Your task to perform on an android device: Search for seafood restaurants on Google Maps Image 0: 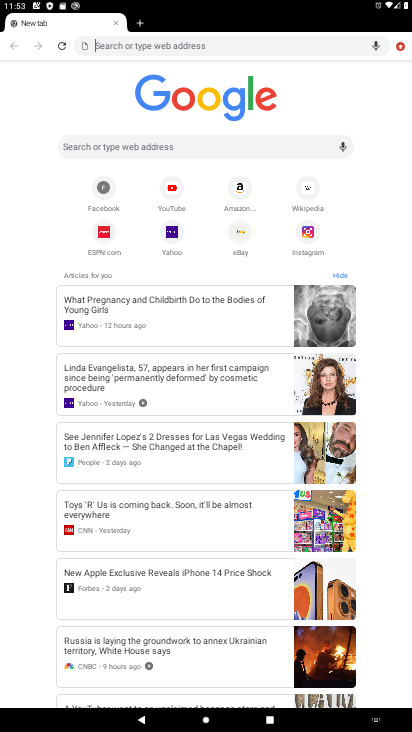
Step 0: press home button
Your task to perform on an android device: Search for seafood restaurants on Google Maps Image 1: 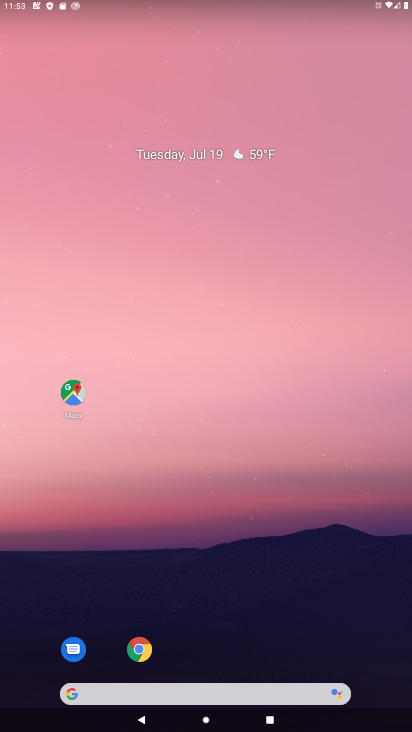
Step 1: drag from (241, 566) to (279, 333)
Your task to perform on an android device: Search for seafood restaurants on Google Maps Image 2: 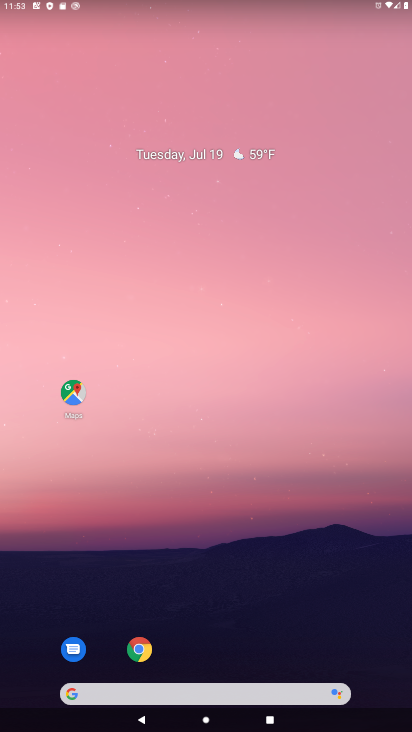
Step 2: click (78, 386)
Your task to perform on an android device: Search for seafood restaurants on Google Maps Image 3: 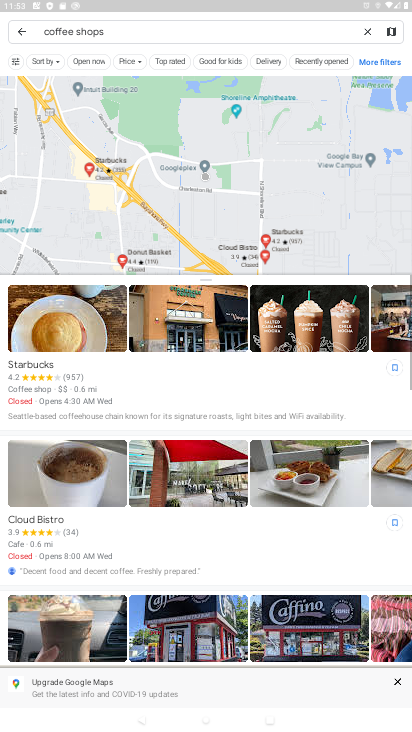
Step 3: click (181, 37)
Your task to perform on an android device: Search for seafood restaurants on Google Maps Image 4: 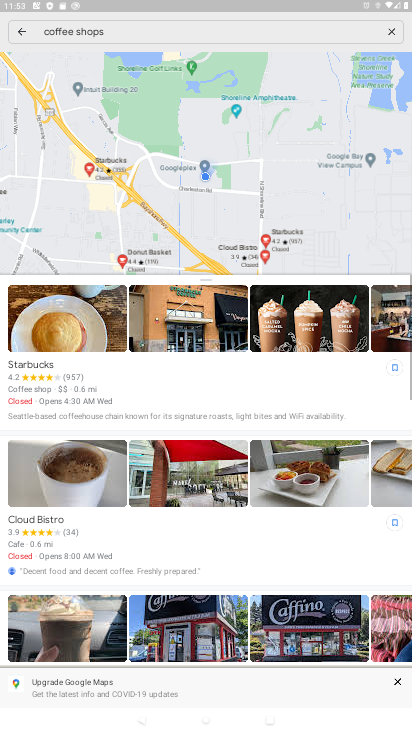
Step 4: click (364, 29)
Your task to perform on an android device: Search for seafood restaurants on Google Maps Image 5: 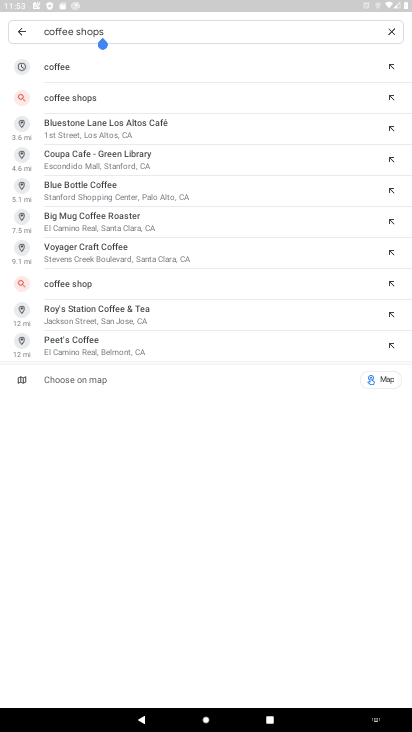
Step 5: click (390, 28)
Your task to perform on an android device: Search for seafood restaurants on Google Maps Image 6: 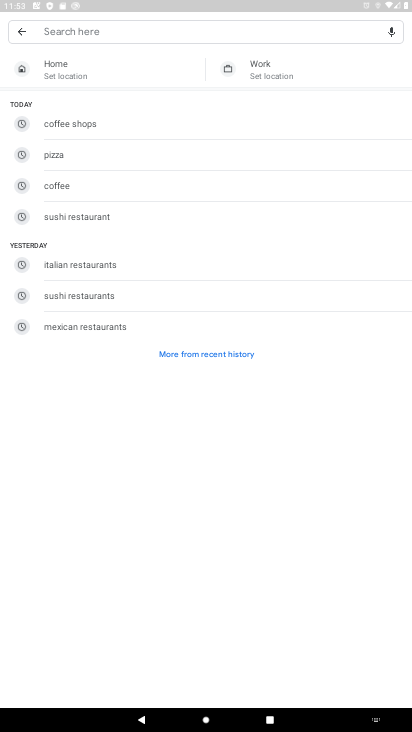
Step 6: type " seafood restaurants"
Your task to perform on an android device: Search for seafood restaurants on Google Maps Image 7: 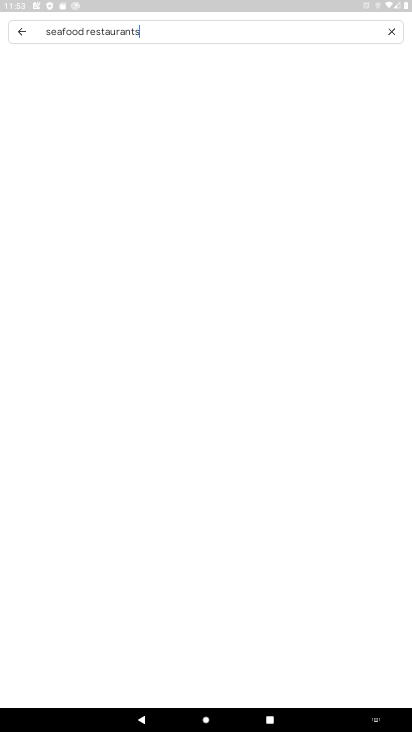
Step 7: press enter
Your task to perform on an android device: Search for seafood restaurants on Google Maps Image 8: 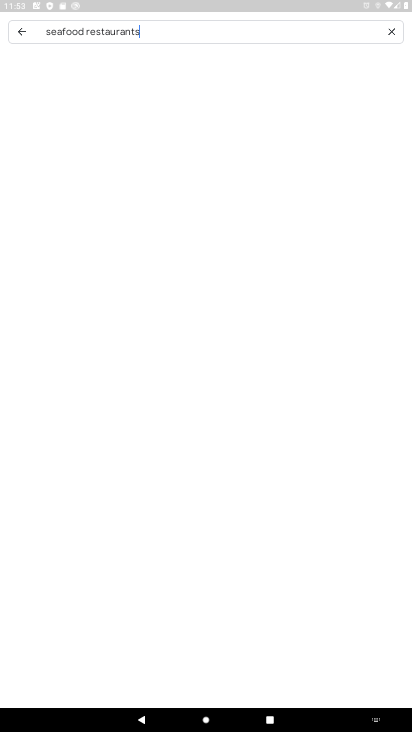
Step 8: type ""
Your task to perform on an android device: Search for seafood restaurants on Google Maps Image 9: 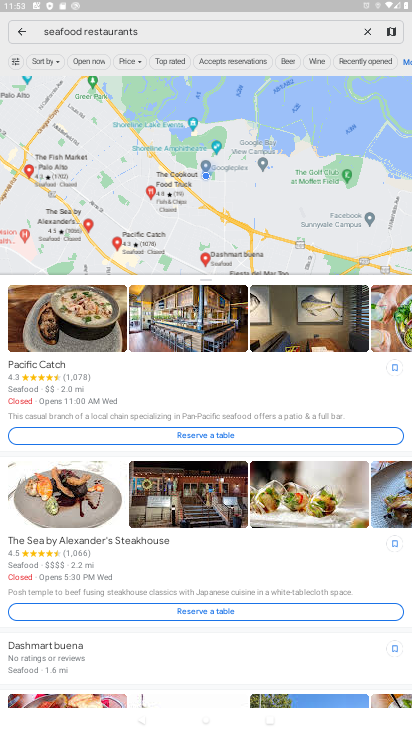
Step 9: task complete